Your task to perform on an android device: Search for Mexican restaurants on Maps Image 0: 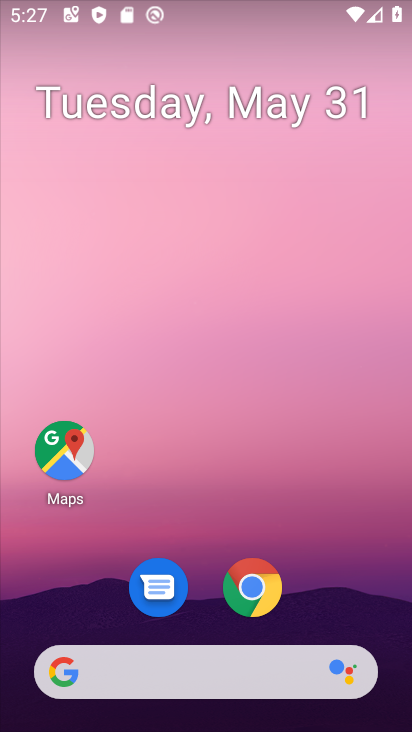
Step 0: click (52, 433)
Your task to perform on an android device: Search for Mexican restaurants on Maps Image 1: 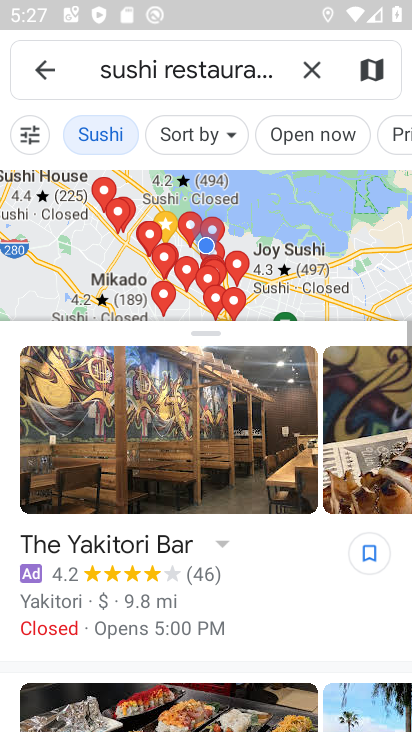
Step 1: click (300, 72)
Your task to perform on an android device: Search for Mexican restaurants on Maps Image 2: 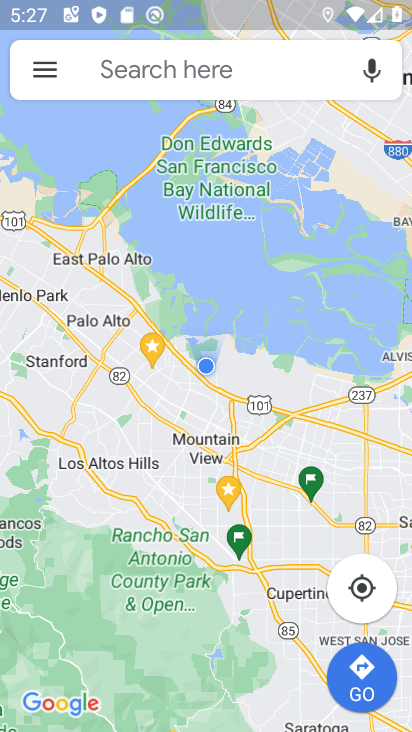
Step 2: click (146, 66)
Your task to perform on an android device: Search for Mexican restaurants on Maps Image 3: 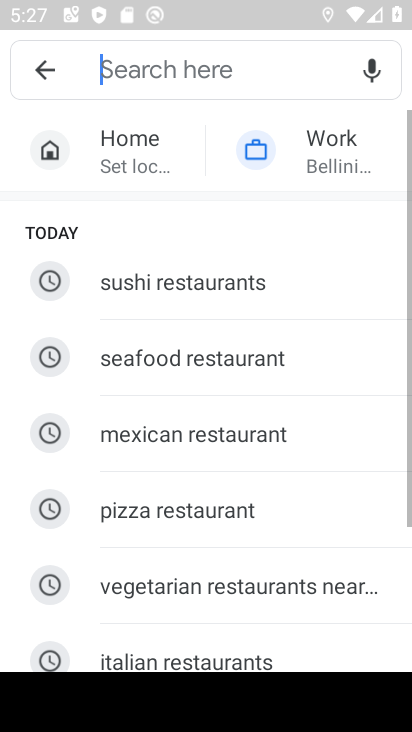
Step 3: click (146, 66)
Your task to perform on an android device: Search for Mexican restaurants on Maps Image 4: 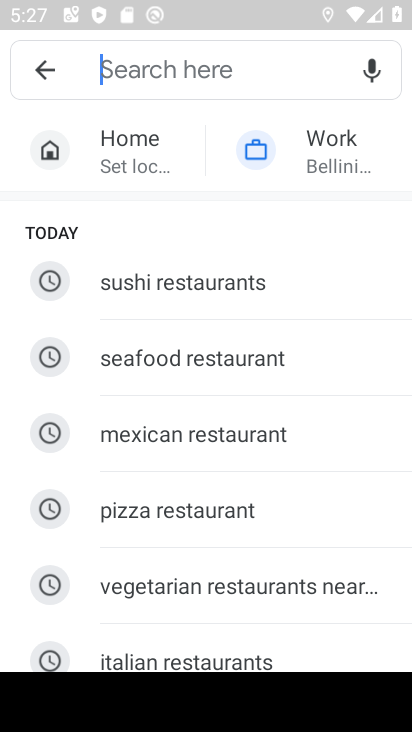
Step 4: click (251, 423)
Your task to perform on an android device: Search for Mexican restaurants on Maps Image 5: 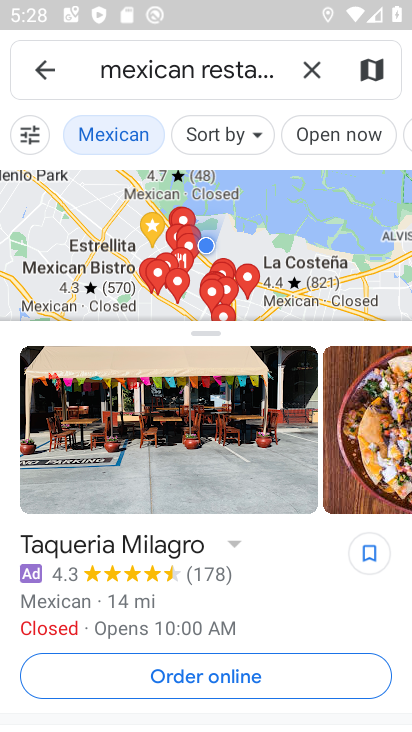
Step 5: task complete